Your task to perform on an android device: star an email in the gmail app Image 0: 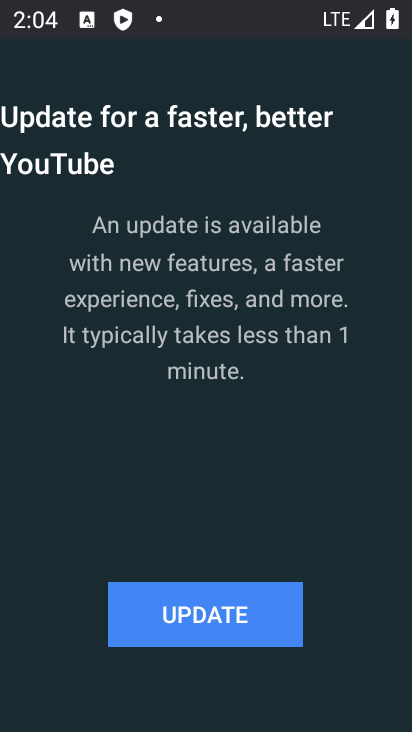
Step 0: press home button
Your task to perform on an android device: star an email in the gmail app Image 1: 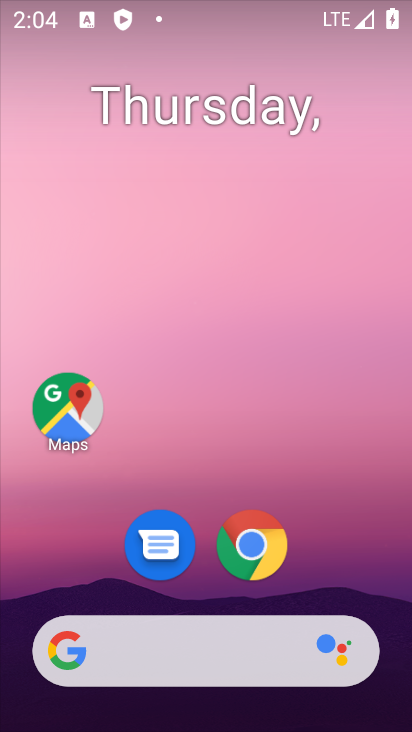
Step 1: drag from (307, 584) to (345, 0)
Your task to perform on an android device: star an email in the gmail app Image 2: 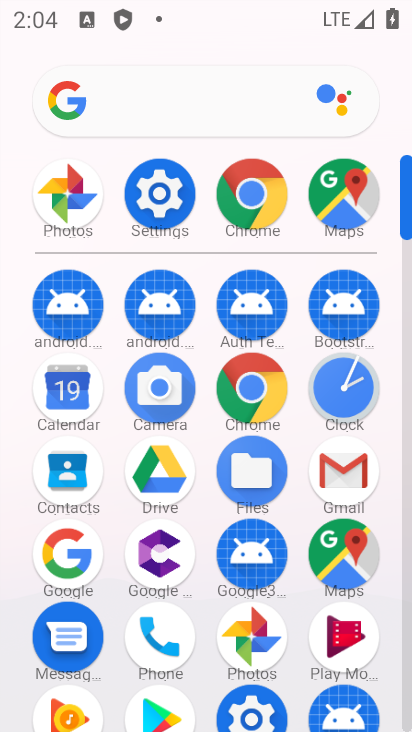
Step 2: click (348, 485)
Your task to perform on an android device: star an email in the gmail app Image 3: 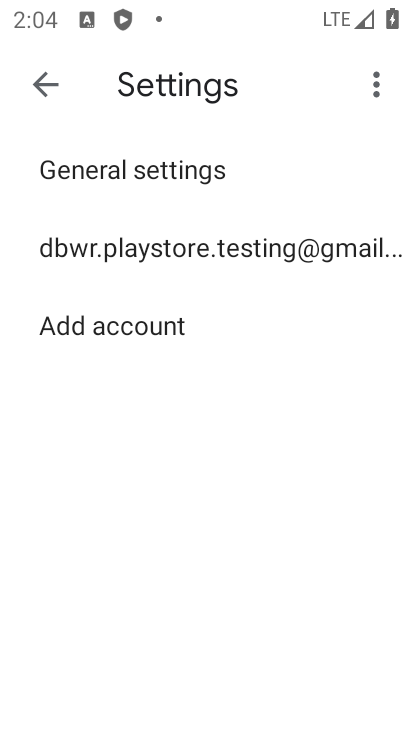
Step 3: press back button
Your task to perform on an android device: star an email in the gmail app Image 4: 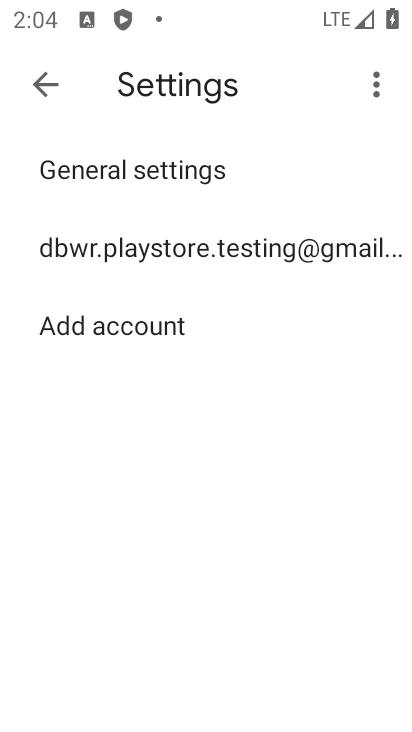
Step 4: press back button
Your task to perform on an android device: star an email in the gmail app Image 5: 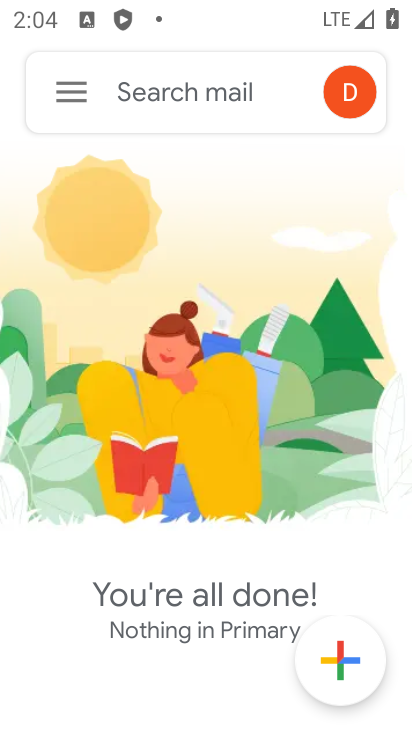
Step 5: click (64, 91)
Your task to perform on an android device: star an email in the gmail app Image 6: 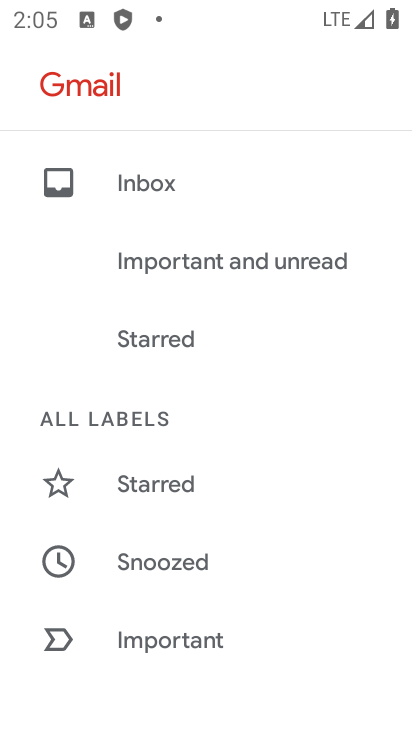
Step 6: click (194, 497)
Your task to perform on an android device: star an email in the gmail app Image 7: 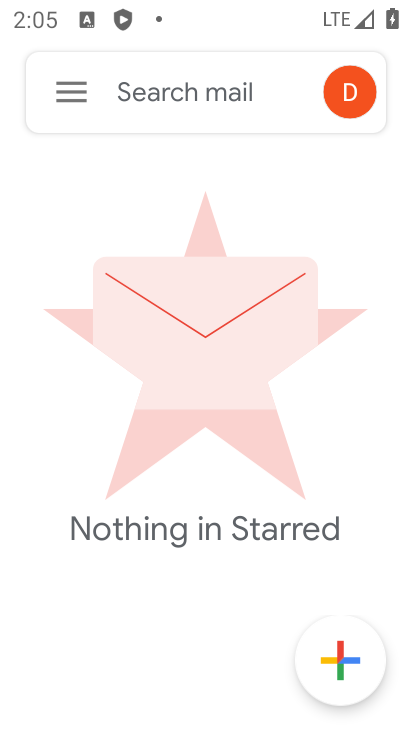
Step 7: task complete